Your task to perform on an android device: turn off picture-in-picture Image 0: 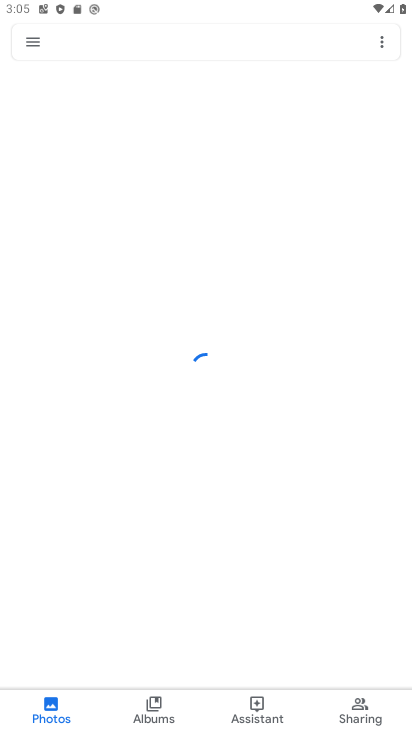
Step 0: press home button
Your task to perform on an android device: turn off picture-in-picture Image 1: 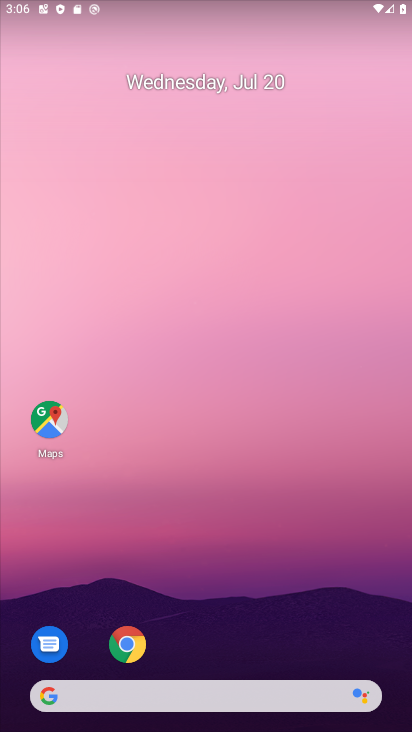
Step 1: drag from (268, 624) to (230, 70)
Your task to perform on an android device: turn off picture-in-picture Image 2: 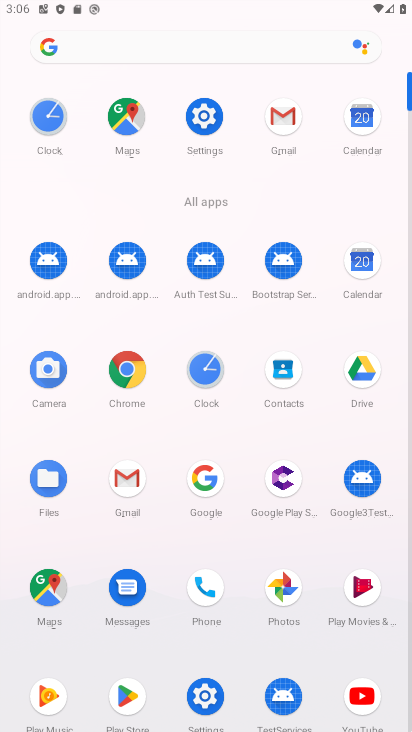
Step 2: click (210, 149)
Your task to perform on an android device: turn off picture-in-picture Image 3: 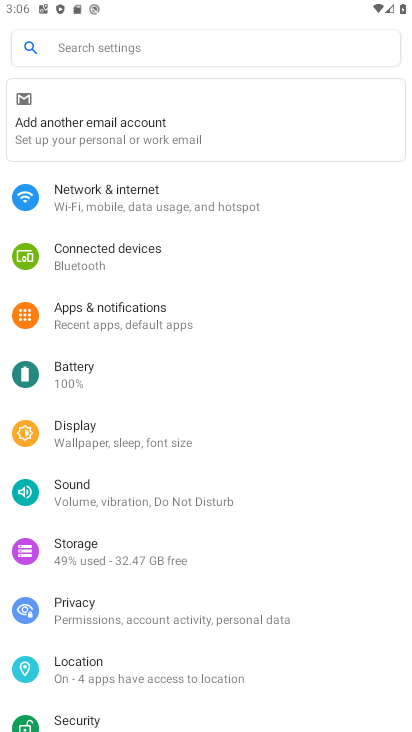
Step 3: click (193, 331)
Your task to perform on an android device: turn off picture-in-picture Image 4: 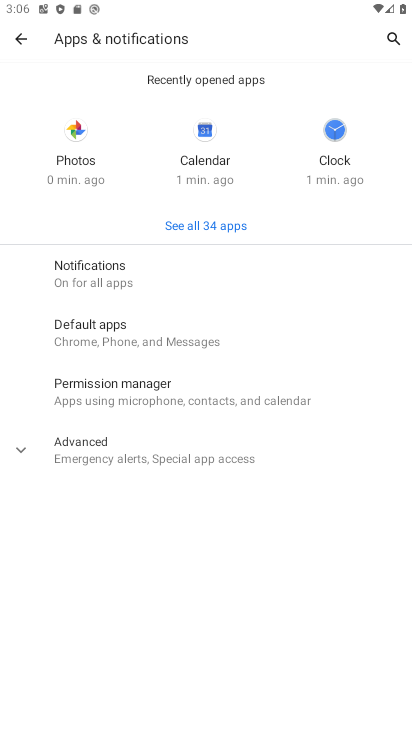
Step 4: click (173, 455)
Your task to perform on an android device: turn off picture-in-picture Image 5: 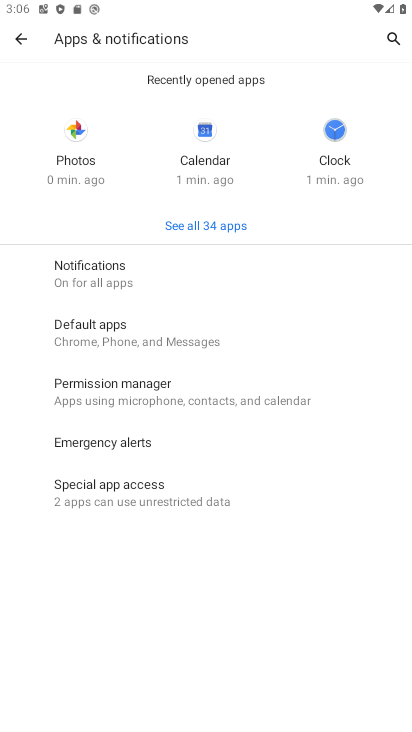
Step 5: click (162, 494)
Your task to perform on an android device: turn off picture-in-picture Image 6: 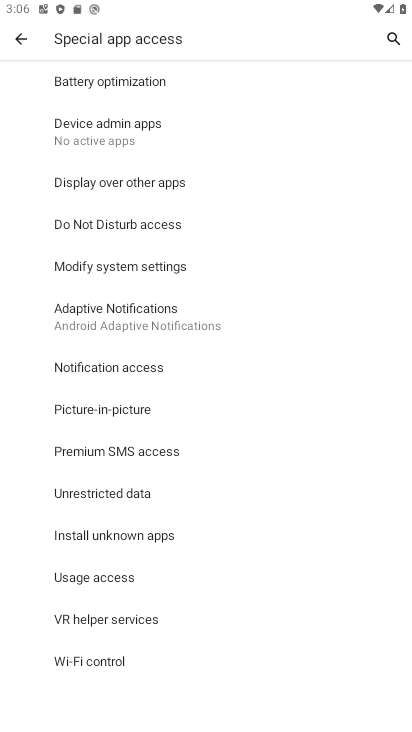
Step 6: click (135, 402)
Your task to perform on an android device: turn off picture-in-picture Image 7: 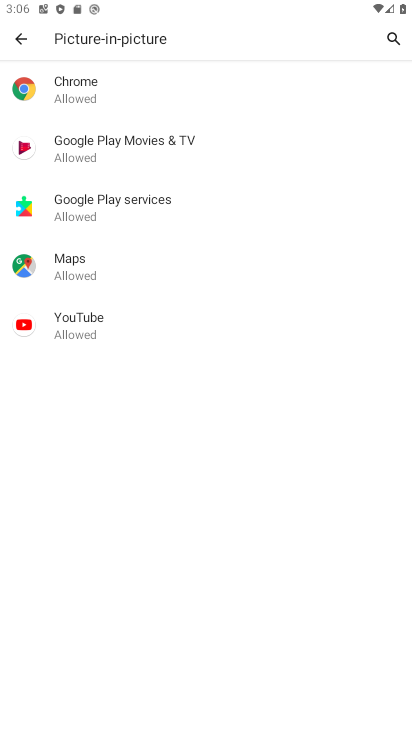
Step 7: click (147, 104)
Your task to perform on an android device: turn off picture-in-picture Image 8: 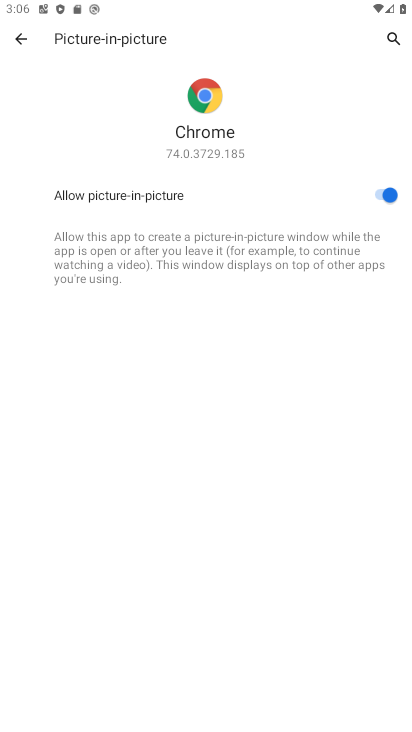
Step 8: task complete